Your task to perform on an android device: Do I have any events today? Image 0: 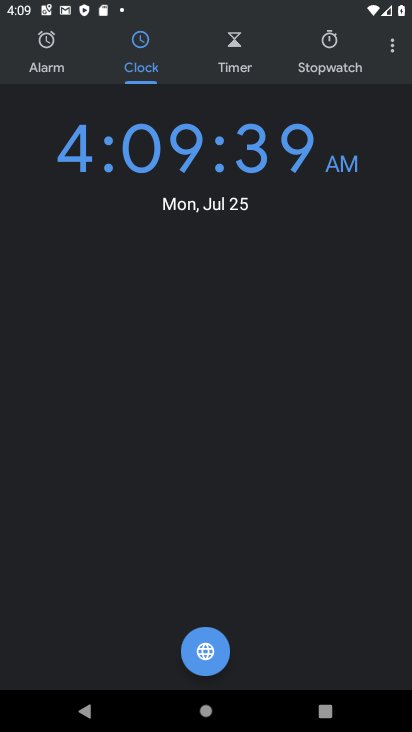
Step 0: press home button
Your task to perform on an android device: Do I have any events today? Image 1: 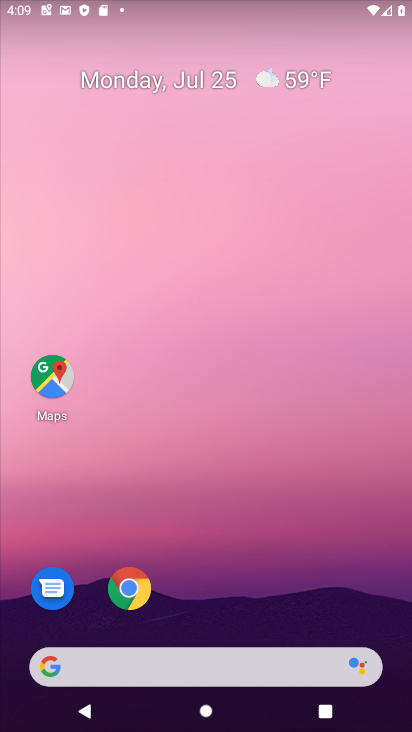
Step 1: drag from (288, 541) to (251, 22)
Your task to perform on an android device: Do I have any events today? Image 2: 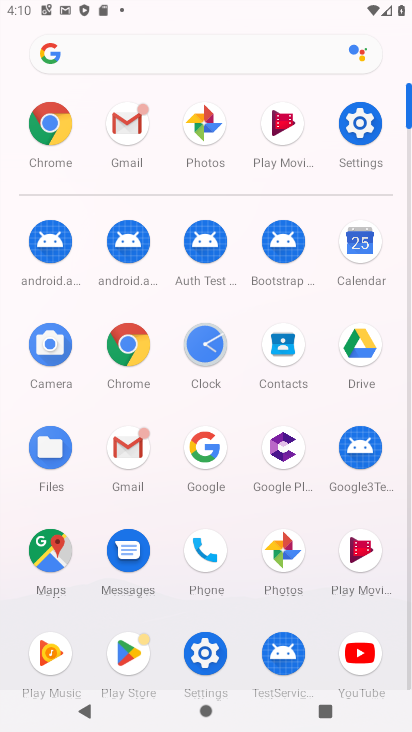
Step 2: click (367, 238)
Your task to perform on an android device: Do I have any events today? Image 3: 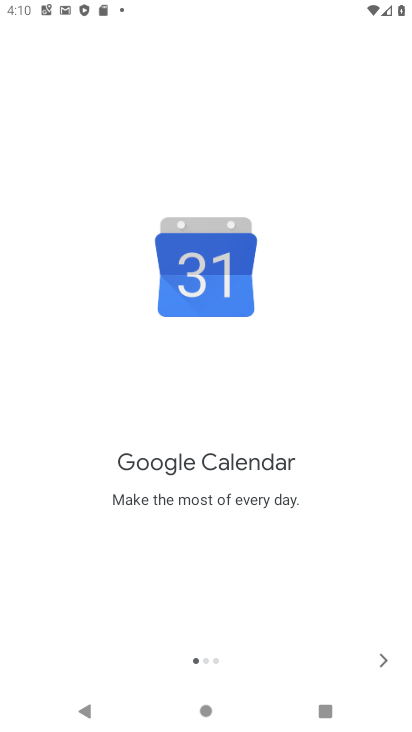
Step 3: click (379, 652)
Your task to perform on an android device: Do I have any events today? Image 4: 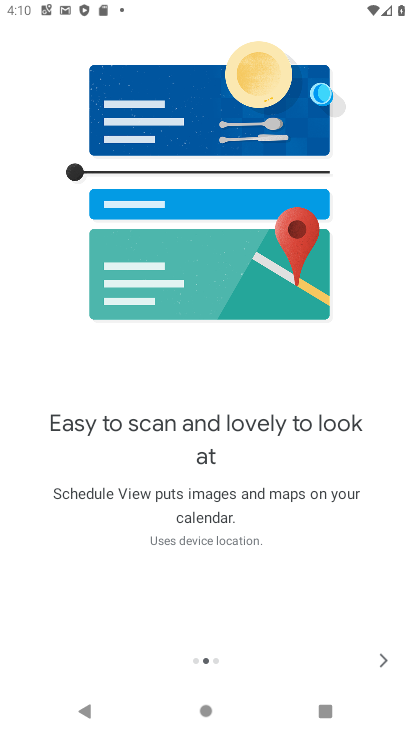
Step 4: click (391, 655)
Your task to perform on an android device: Do I have any events today? Image 5: 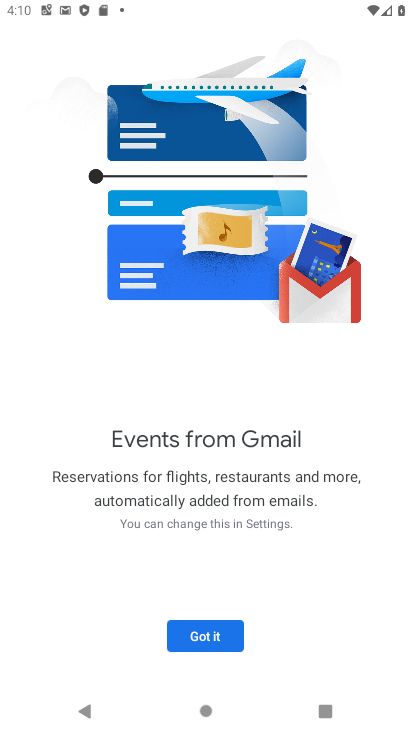
Step 5: click (222, 631)
Your task to perform on an android device: Do I have any events today? Image 6: 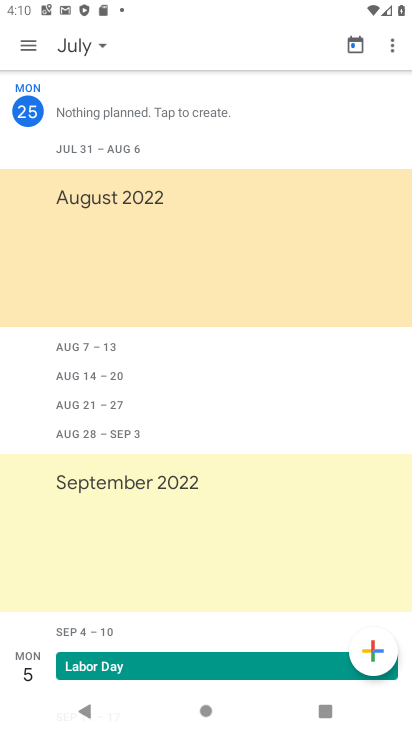
Step 6: click (100, 38)
Your task to perform on an android device: Do I have any events today? Image 7: 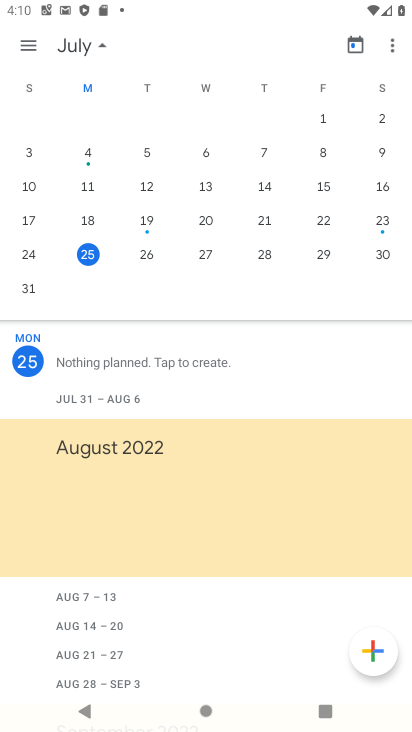
Step 7: click (88, 251)
Your task to perform on an android device: Do I have any events today? Image 8: 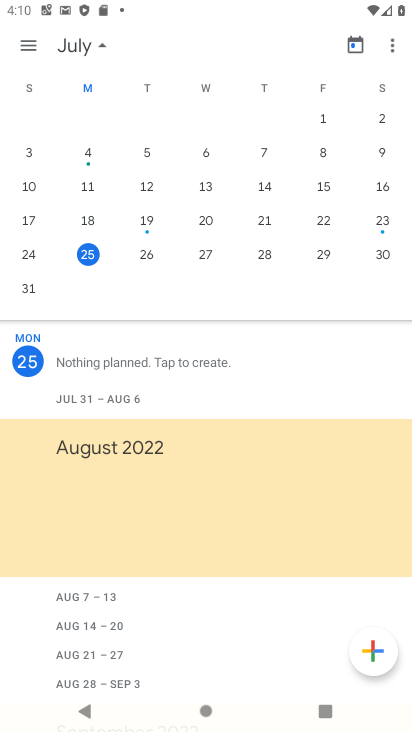
Step 8: task complete